Your task to perform on an android device: Search for seafood restaurants on Google Maps Image 0: 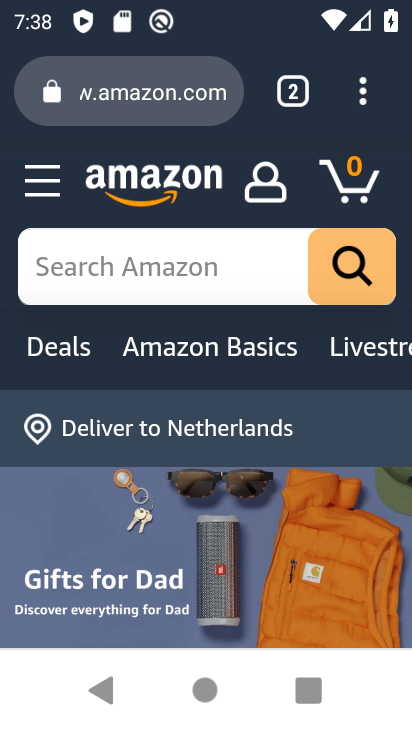
Step 0: press home button
Your task to perform on an android device: Search for seafood restaurants on Google Maps Image 1: 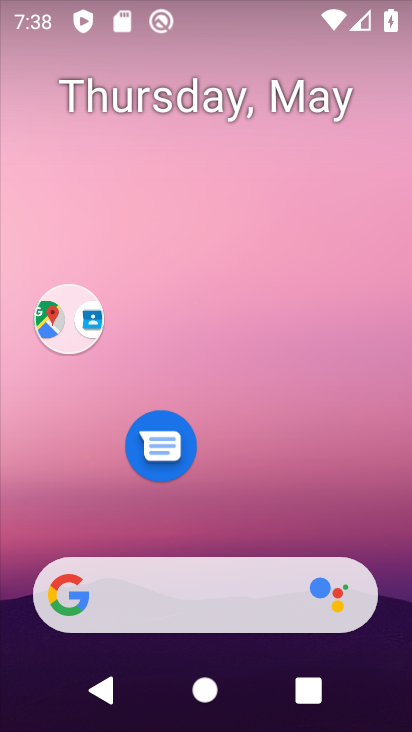
Step 1: drag from (261, 538) to (241, 266)
Your task to perform on an android device: Search for seafood restaurants on Google Maps Image 2: 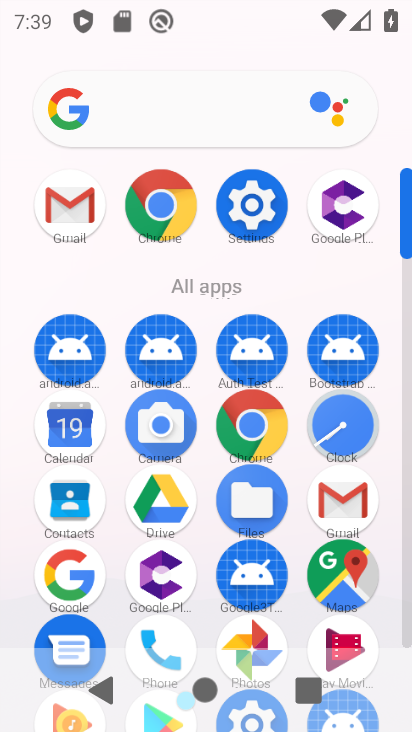
Step 2: click (349, 578)
Your task to perform on an android device: Search for seafood restaurants on Google Maps Image 3: 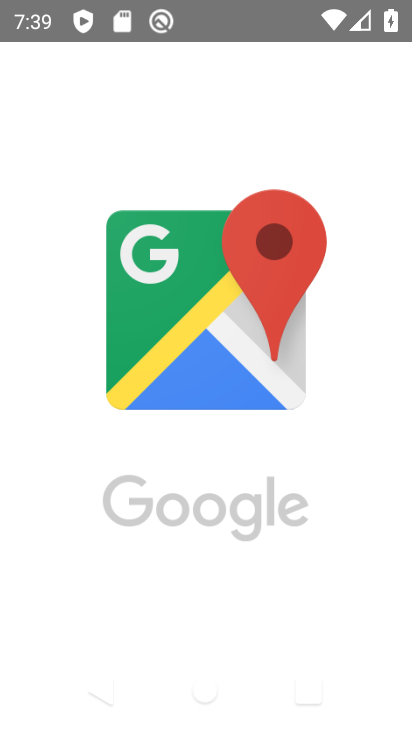
Step 3: click (200, 443)
Your task to perform on an android device: Search for seafood restaurants on Google Maps Image 4: 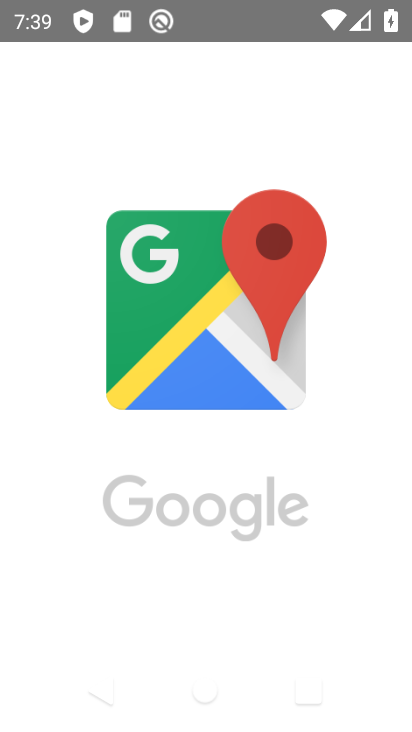
Step 4: click (246, 291)
Your task to perform on an android device: Search for seafood restaurants on Google Maps Image 5: 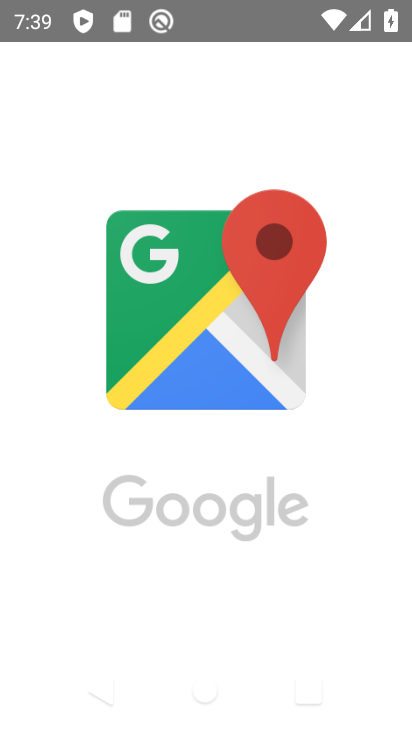
Step 5: click (299, 293)
Your task to perform on an android device: Search for seafood restaurants on Google Maps Image 6: 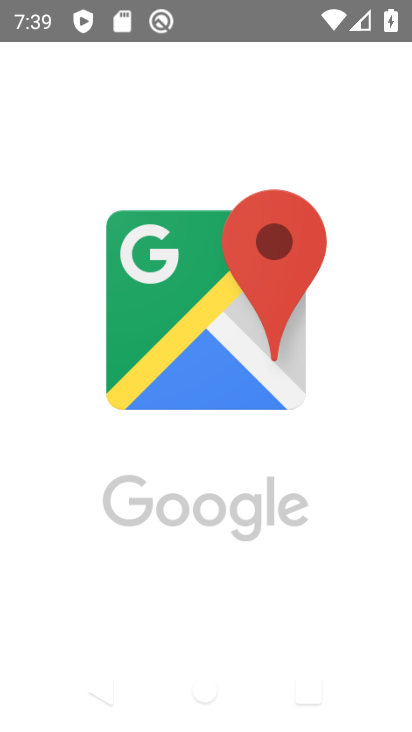
Step 6: task complete